Your task to perform on an android device: toggle location history Image 0: 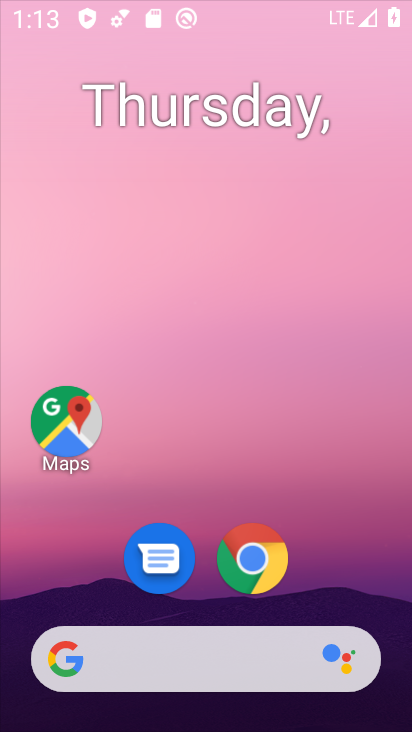
Step 0: click (355, 75)
Your task to perform on an android device: toggle location history Image 1: 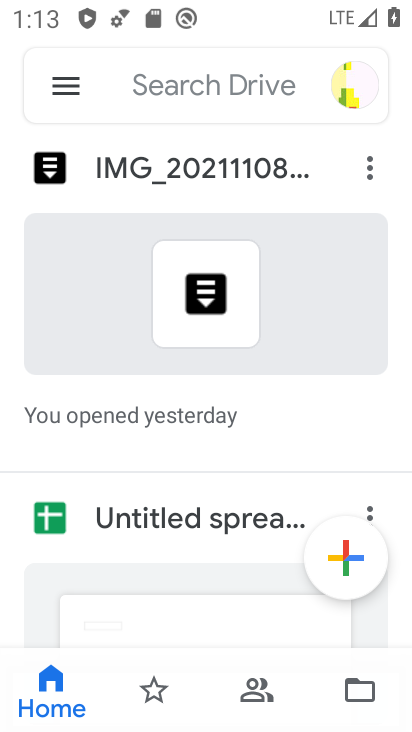
Step 1: press home button
Your task to perform on an android device: toggle location history Image 2: 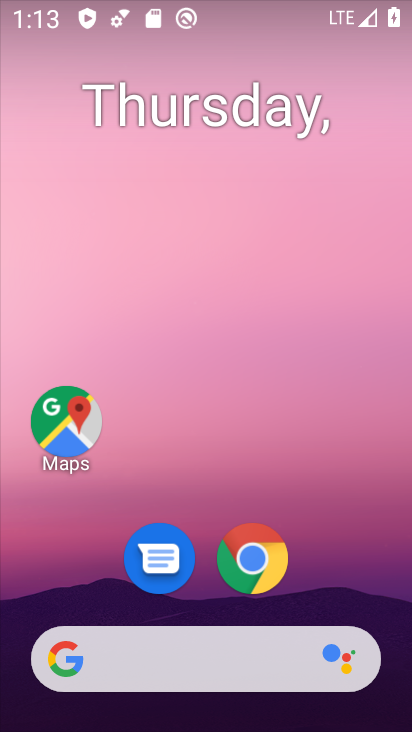
Step 2: click (71, 424)
Your task to perform on an android device: toggle location history Image 3: 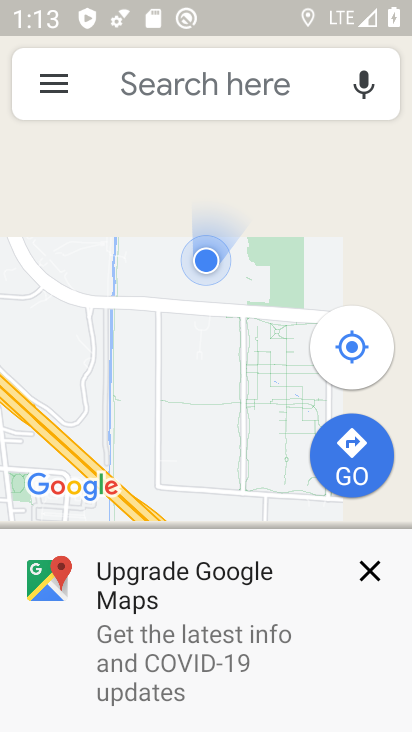
Step 3: click (61, 80)
Your task to perform on an android device: toggle location history Image 4: 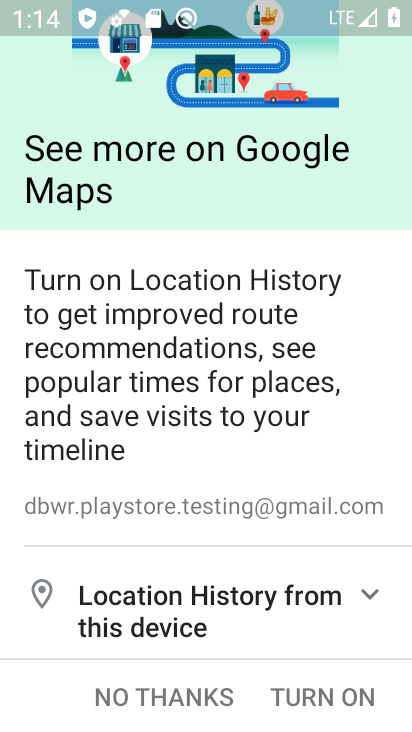
Step 4: click (303, 708)
Your task to perform on an android device: toggle location history Image 5: 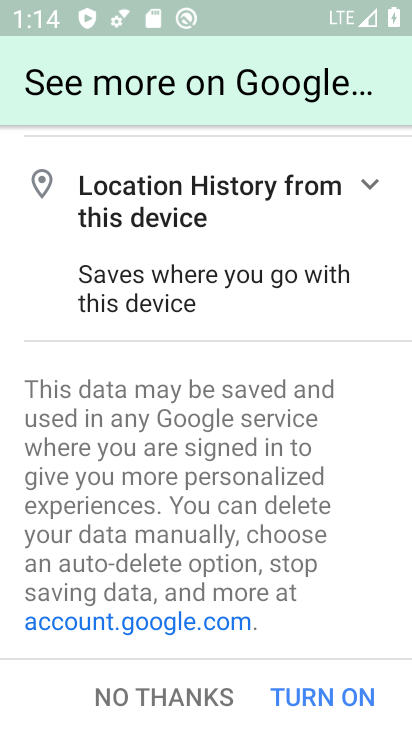
Step 5: click (303, 708)
Your task to perform on an android device: toggle location history Image 6: 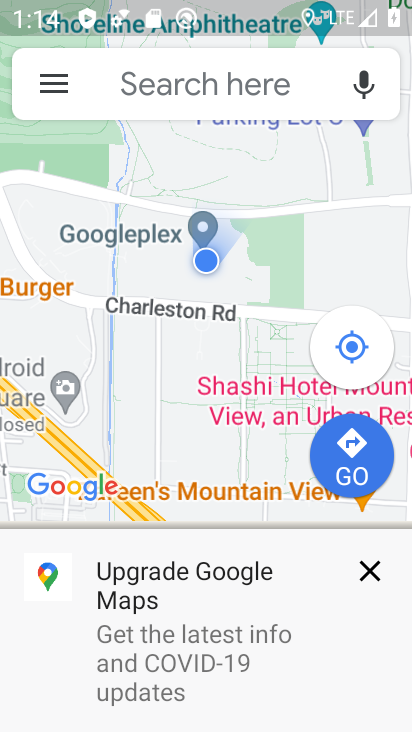
Step 6: task complete